Your task to perform on an android device: change the clock display to show seconds Image 0: 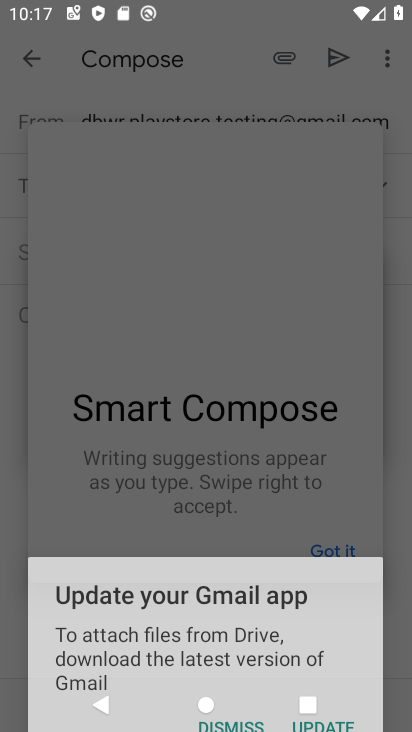
Step 0: press home button
Your task to perform on an android device: change the clock display to show seconds Image 1: 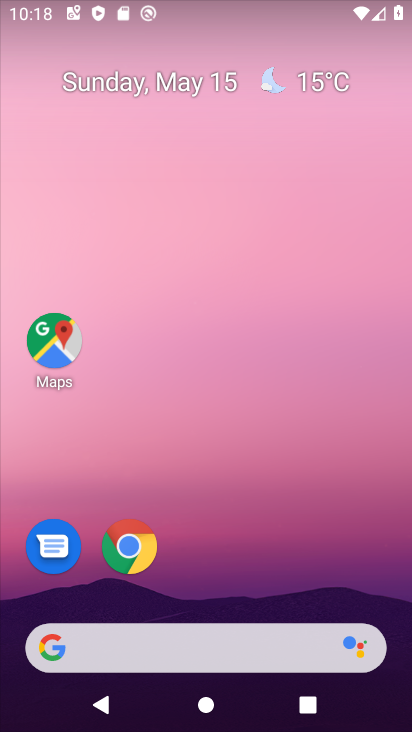
Step 1: drag from (237, 593) to (268, 166)
Your task to perform on an android device: change the clock display to show seconds Image 2: 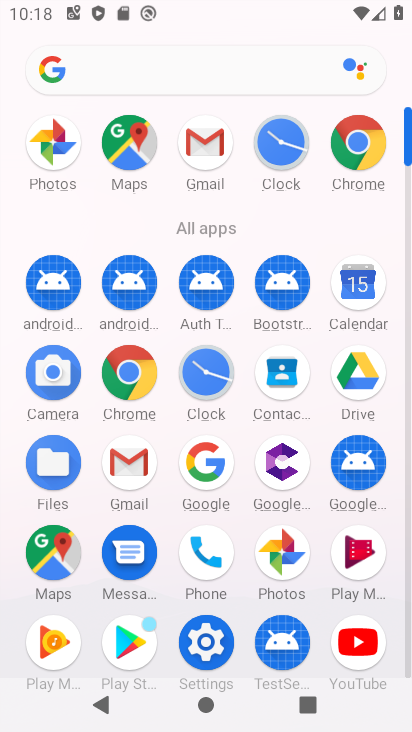
Step 2: click (274, 143)
Your task to perform on an android device: change the clock display to show seconds Image 3: 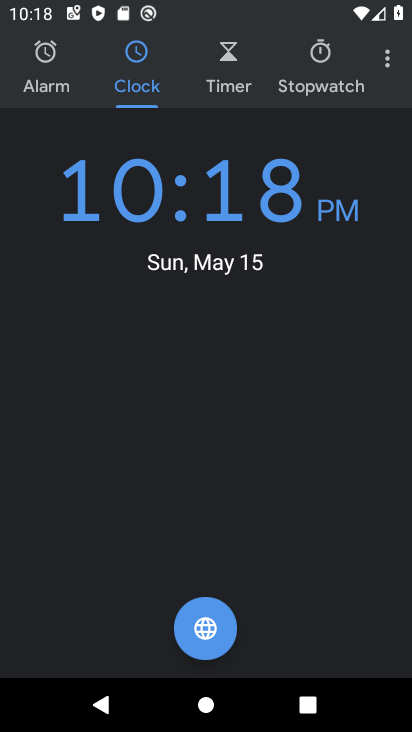
Step 3: click (387, 66)
Your task to perform on an android device: change the clock display to show seconds Image 4: 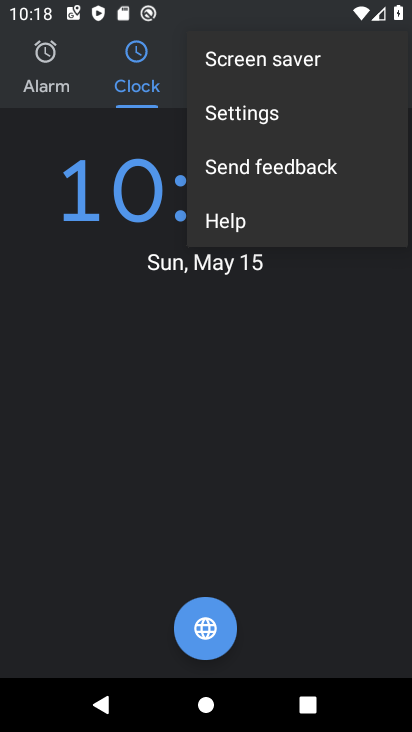
Step 4: click (367, 93)
Your task to perform on an android device: change the clock display to show seconds Image 5: 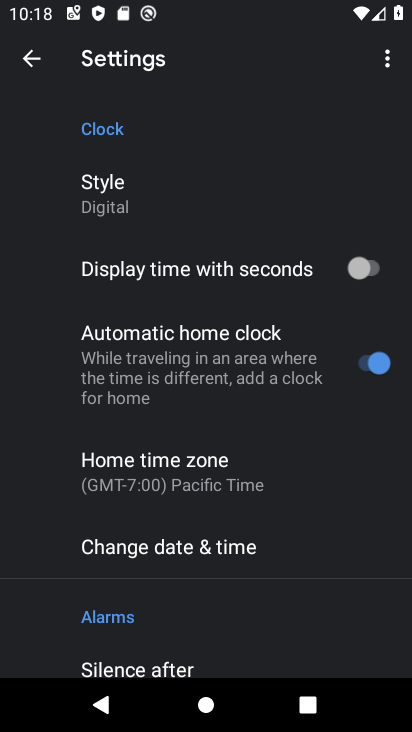
Step 5: click (363, 266)
Your task to perform on an android device: change the clock display to show seconds Image 6: 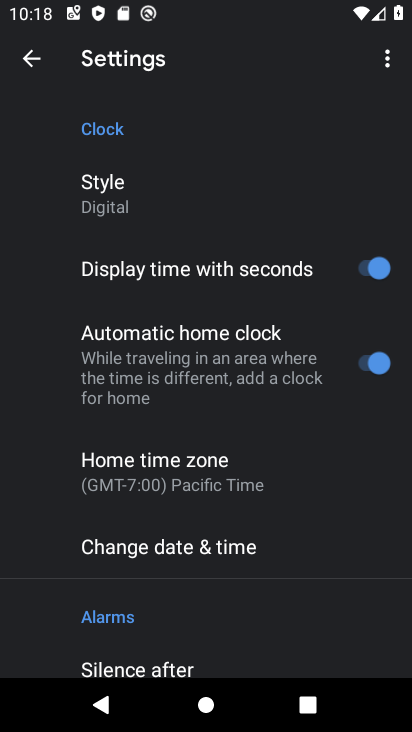
Step 6: task complete